Your task to perform on an android device: check google app version Image 0: 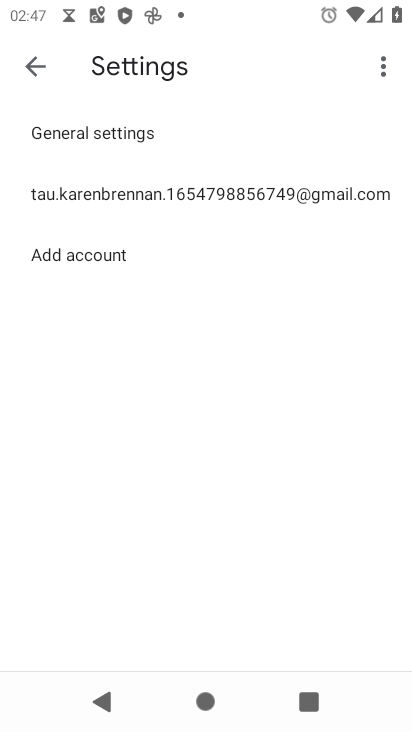
Step 0: press home button
Your task to perform on an android device: check google app version Image 1: 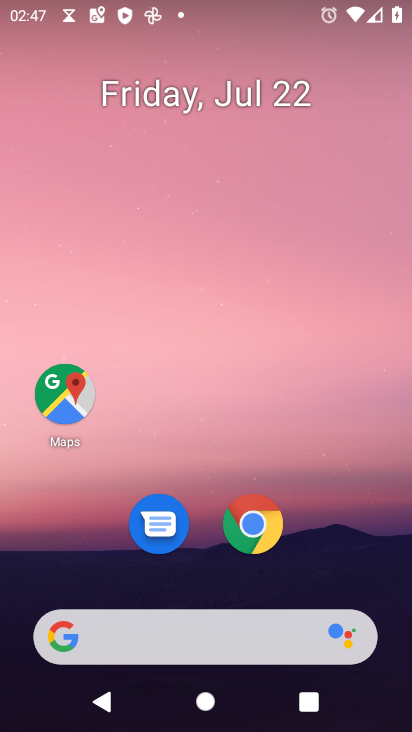
Step 1: drag from (208, 630) to (283, 148)
Your task to perform on an android device: check google app version Image 2: 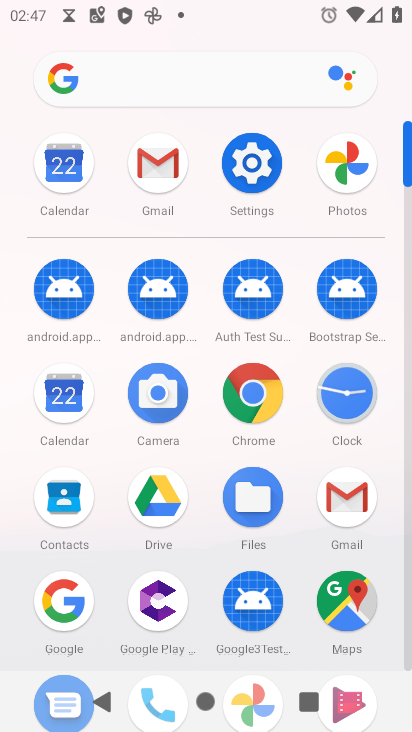
Step 2: click (72, 597)
Your task to perform on an android device: check google app version Image 3: 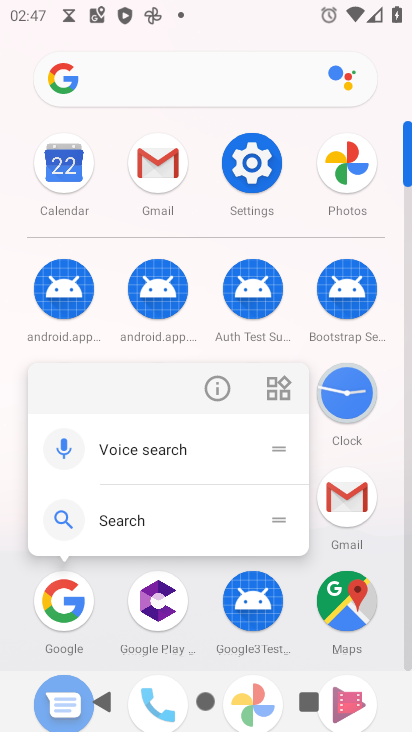
Step 3: click (219, 387)
Your task to perform on an android device: check google app version Image 4: 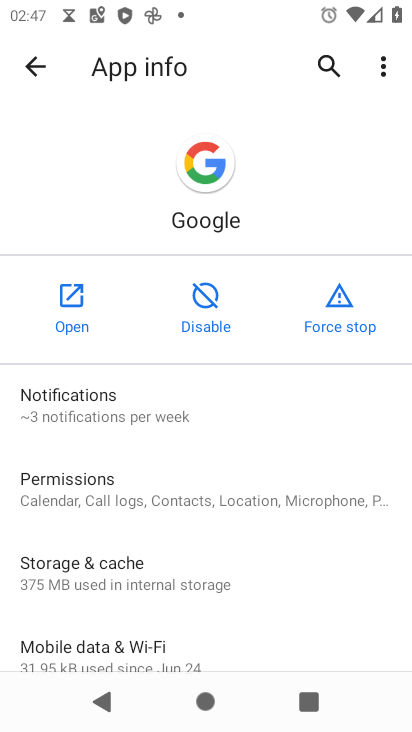
Step 4: drag from (151, 626) to (251, 291)
Your task to perform on an android device: check google app version Image 5: 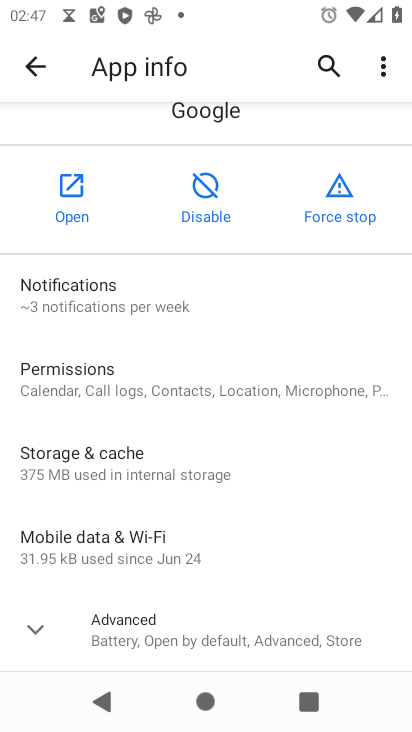
Step 5: click (139, 623)
Your task to perform on an android device: check google app version Image 6: 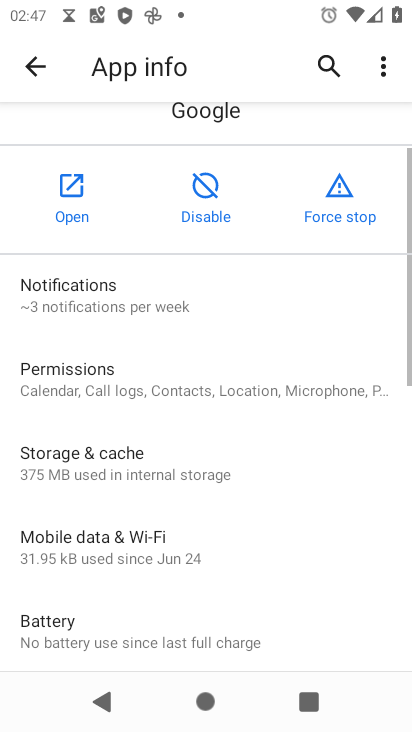
Step 6: task complete